Your task to perform on an android device: Is it going to rain tomorrow? Image 0: 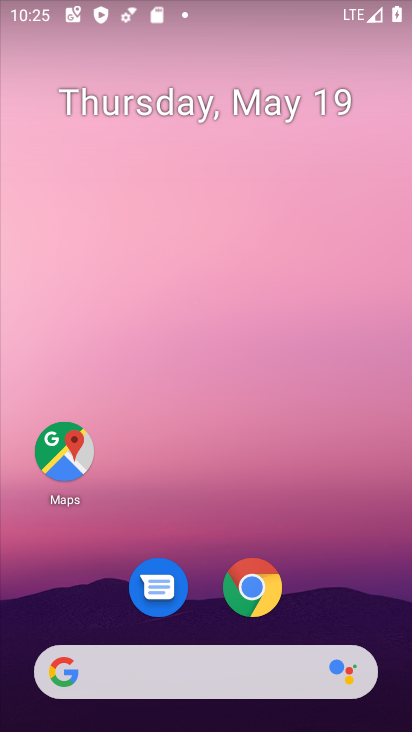
Step 0: click (193, 662)
Your task to perform on an android device: Is it going to rain tomorrow? Image 1: 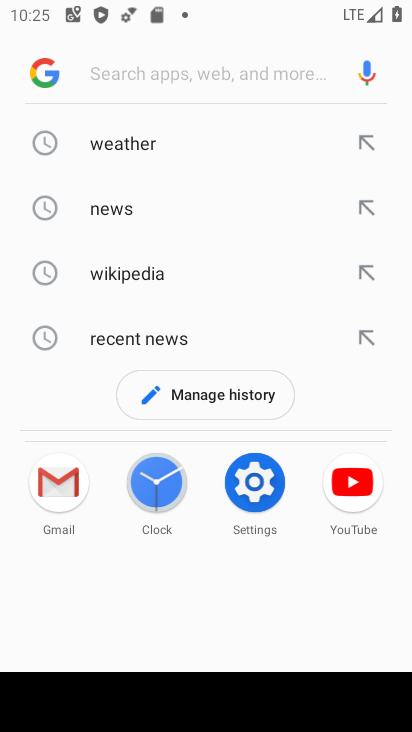
Step 1: click (149, 133)
Your task to perform on an android device: Is it going to rain tomorrow? Image 2: 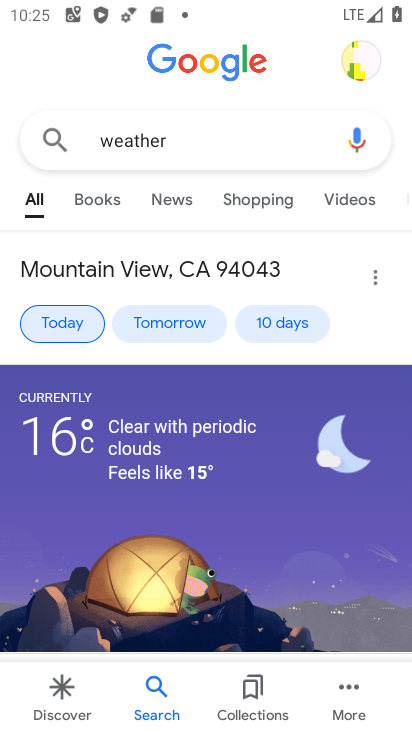
Step 2: task complete